Your task to perform on an android device: change notification settings in the gmail app Image 0: 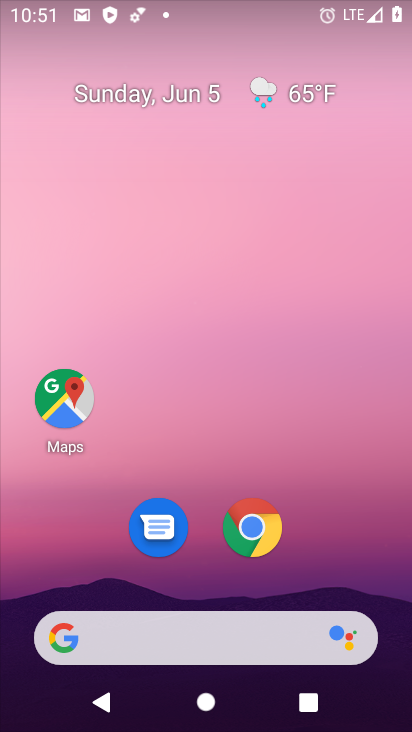
Step 0: drag from (16, 650) to (318, 83)
Your task to perform on an android device: change notification settings in the gmail app Image 1: 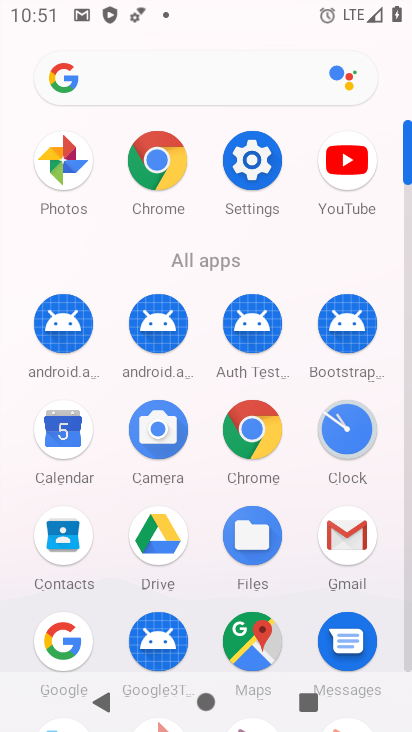
Step 1: click (357, 543)
Your task to perform on an android device: change notification settings in the gmail app Image 2: 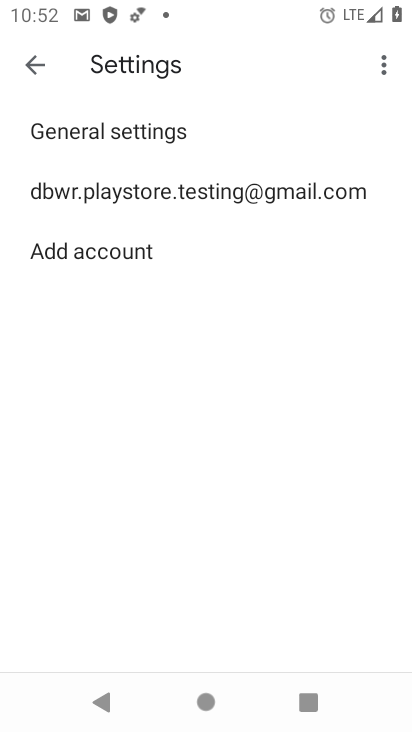
Step 2: click (224, 181)
Your task to perform on an android device: change notification settings in the gmail app Image 3: 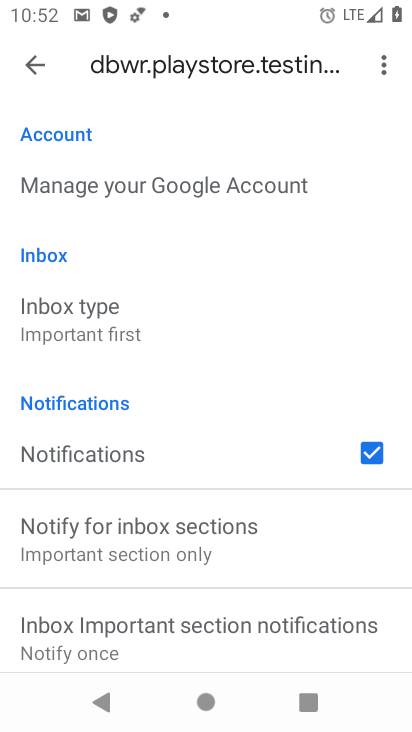
Step 3: drag from (22, 479) to (272, 181)
Your task to perform on an android device: change notification settings in the gmail app Image 4: 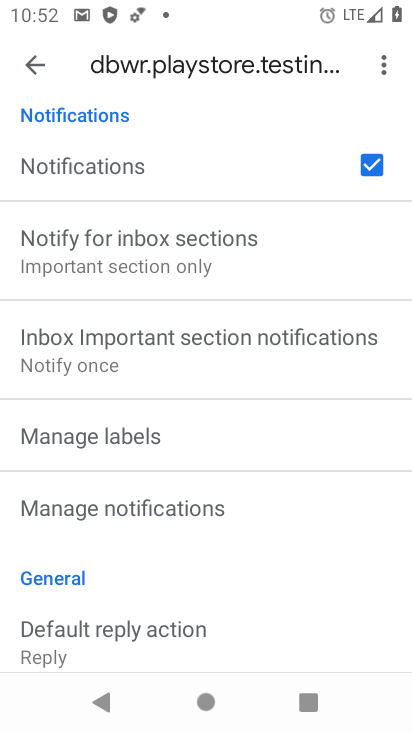
Step 4: click (119, 513)
Your task to perform on an android device: change notification settings in the gmail app Image 5: 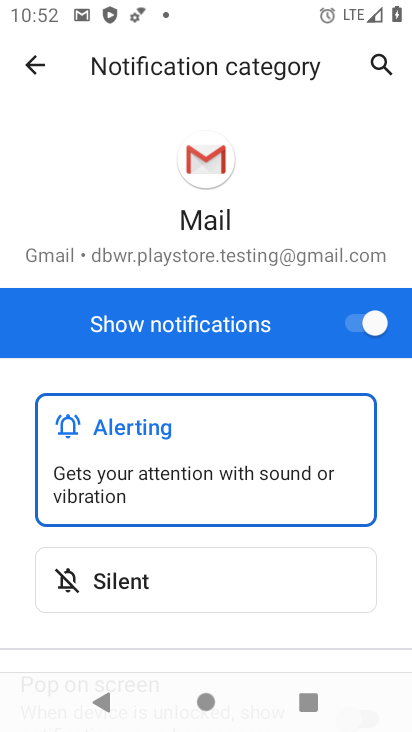
Step 5: click (387, 315)
Your task to perform on an android device: change notification settings in the gmail app Image 6: 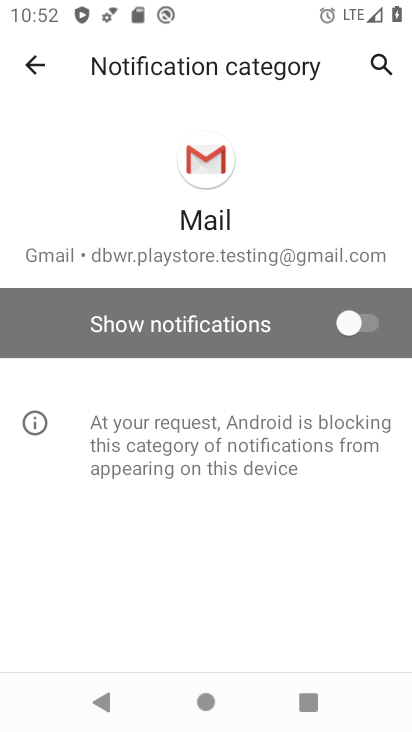
Step 6: task complete